Your task to perform on an android device: Go to Maps Image 0: 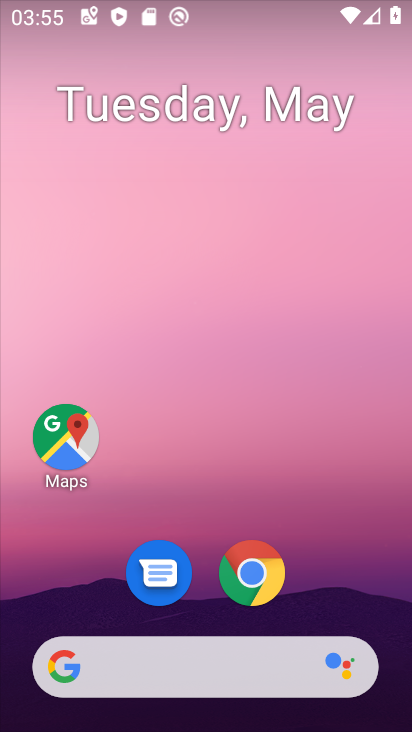
Step 0: click (82, 425)
Your task to perform on an android device: Go to Maps Image 1: 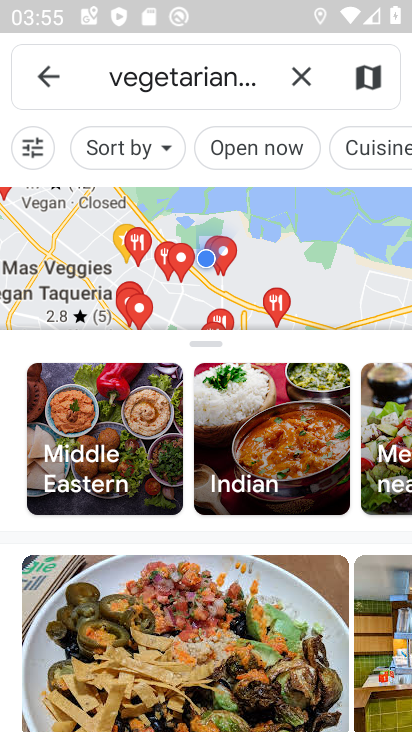
Step 1: task complete